Your task to perform on an android device: open chrome and create a bookmark for the current page Image 0: 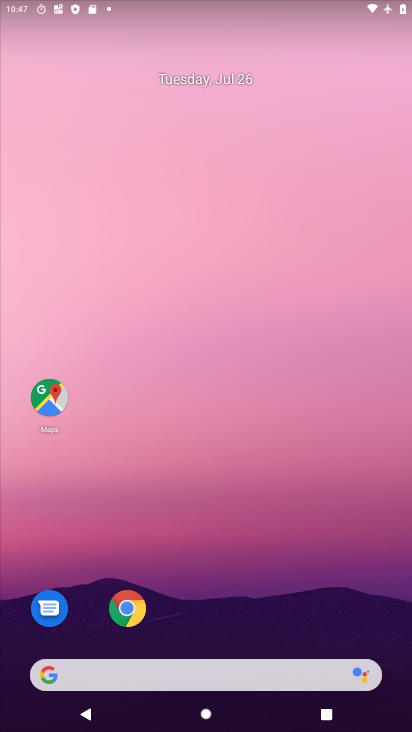
Step 0: drag from (199, 606) to (240, 64)
Your task to perform on an android device: open chrome and create a bookmark for the current page Image 1: 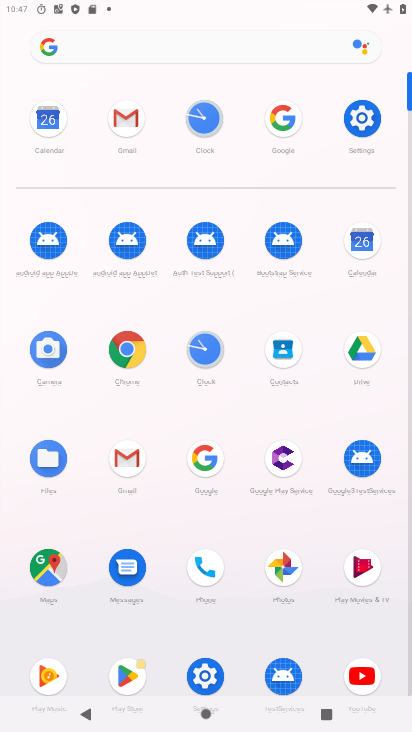
Step 1: click (117, 363)
Your task to perform on an android device: open chrome and create a bookmark for the current page Image 2: 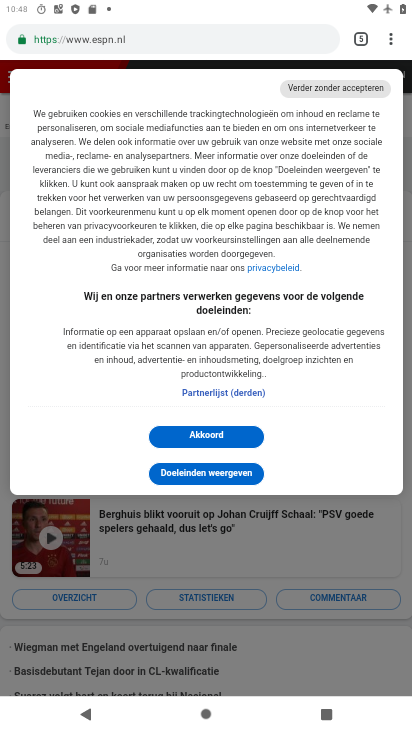
Step 2: click (368, 34)
Your task to perform on an android device: open chrome and create a bookmark for the current page Image 3: 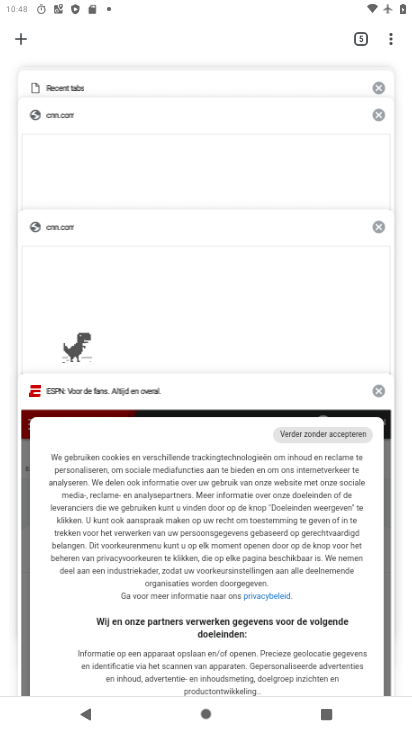
Step 3: click (31, 32)
Your task to perform on an android device: open chrome and create a bookmark for the current page Image 4: 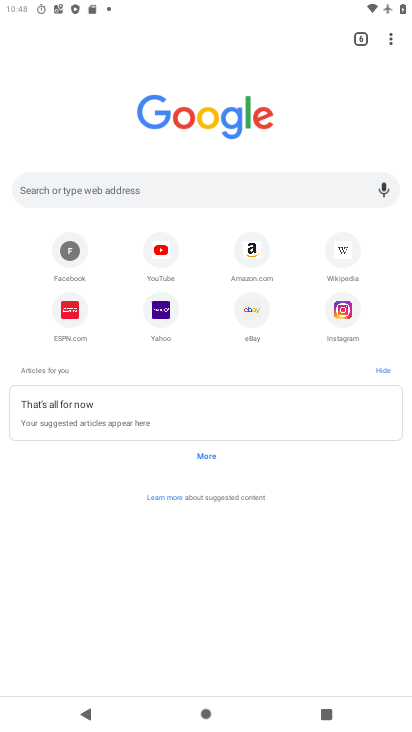
Step 4: task complete